Your task to perform on an android device: set the stopwatch Image 0: 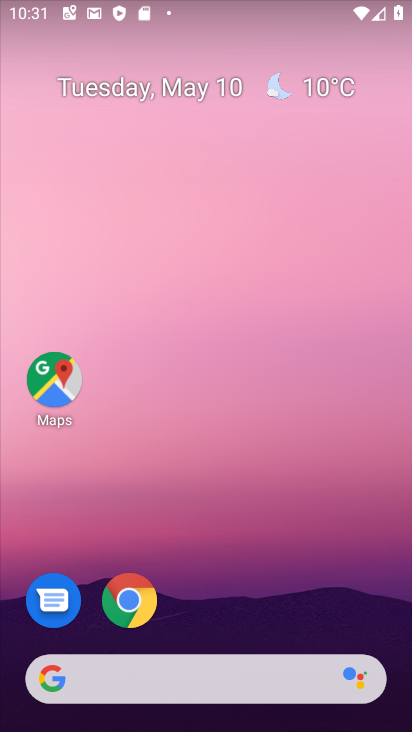
Step 0: drag from (252, 551) to (178, 21)
Your task to perform on an android device: set the stopwatch Image 1: 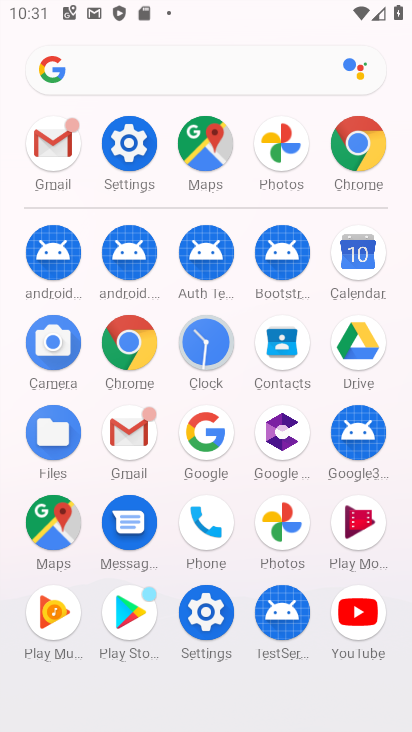
Step 1: drag from (13, 457) to (0, 150)
Your task to perform on an android device: set the stopwatch Image 2: 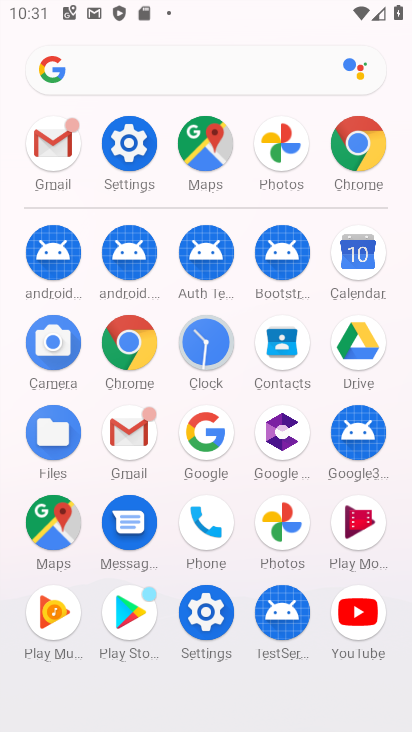
Step 2: click (200, 338)
Your task to perform on an android device: set the stopwatch Image 3: 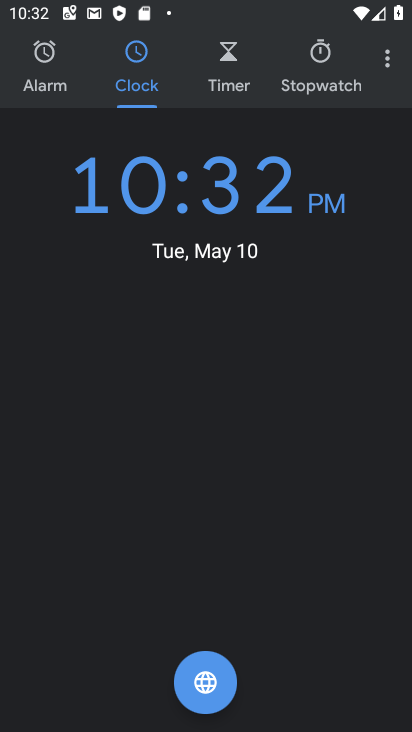
Step 3: click (315, 67)
Your task to perform on an android device: set the stopwatch Image 4: 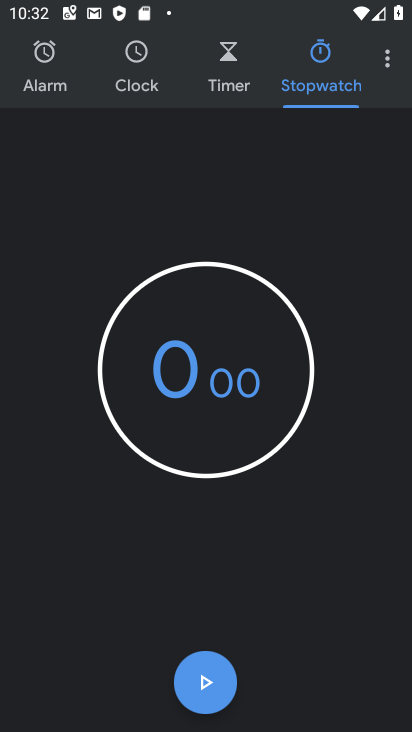
Step 4: click (205, 679)
Your task to perform on an android device: set the stopwatch Image 5: 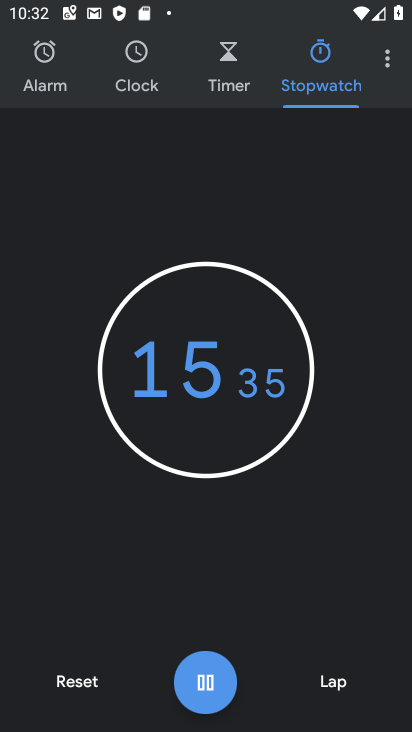
Step 5: task complete